Your task to perform on an android device: Find coffee shops on Maps Image 0: 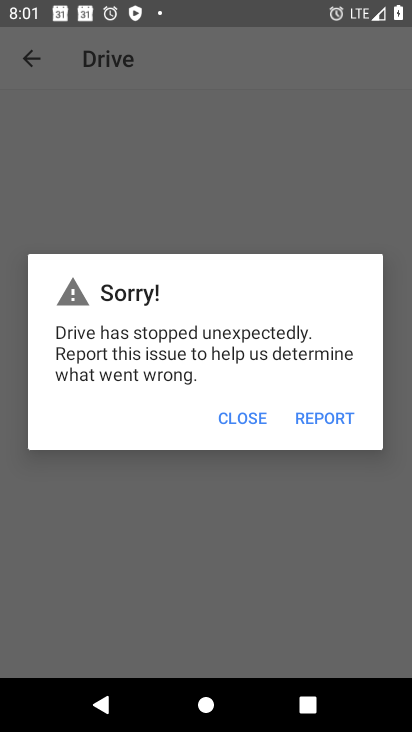
Step 0: press home button
Your task to perform on an android device: Find coffee shops on Maps Image 1: 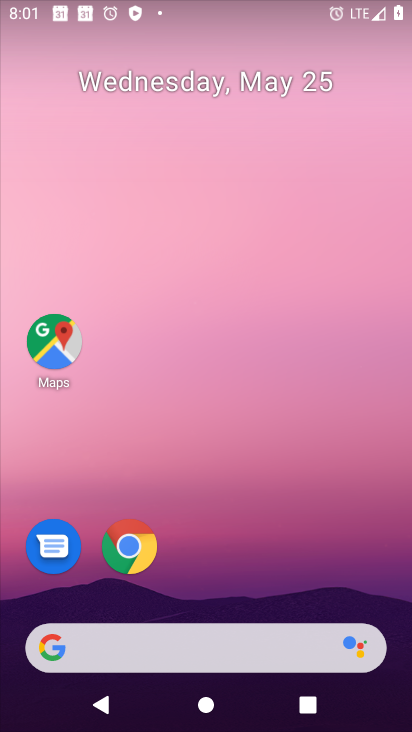
Step 1: drag from (380, 602) to (367, 250)
Your task to perform on an android device: Find coffee shops on Maps Image 2: 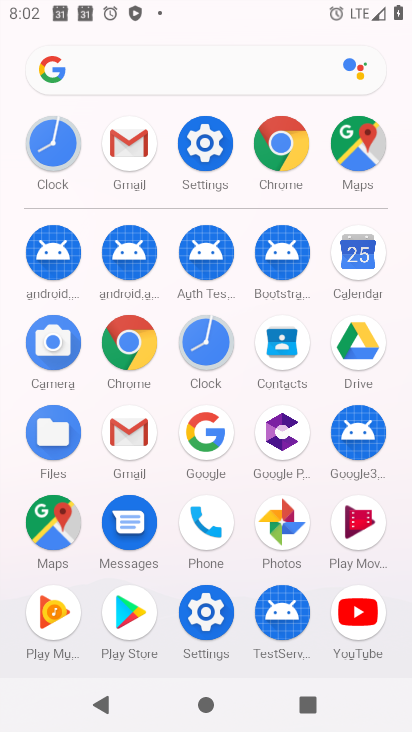
Step 2: click (67, 544)
Your task to perform on an android device: Find coffee shops on Maps Image 3: 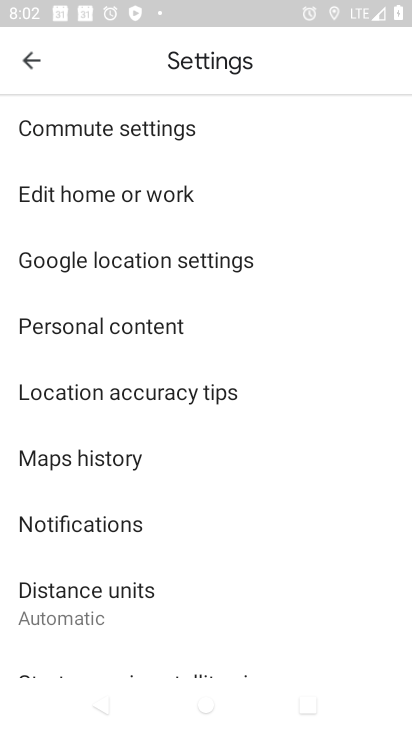
Step 3: press back button
Your task to perform on an android device: Find coffee shops on Maps Image 4: 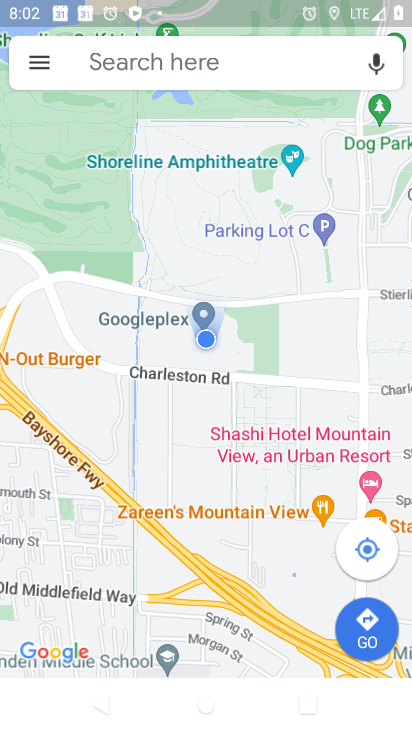
Step 4: click (198, 66)
Your task to perform on an android device: Find coffee shops on Maps Image 5: 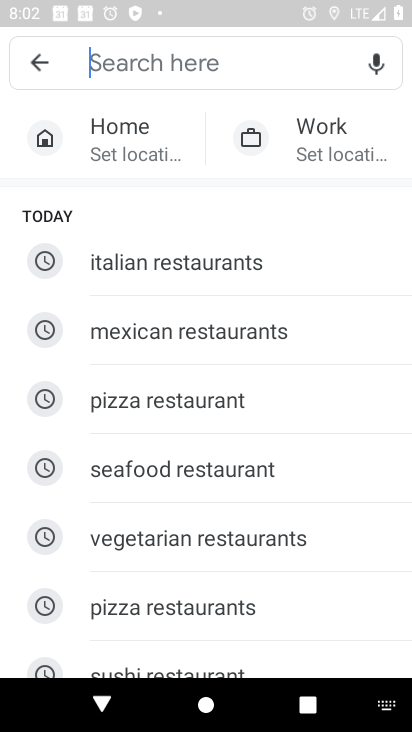
Step 5: type "coffee"
Your task to perform on an android device: Find coffee shops on Maps Image 6: 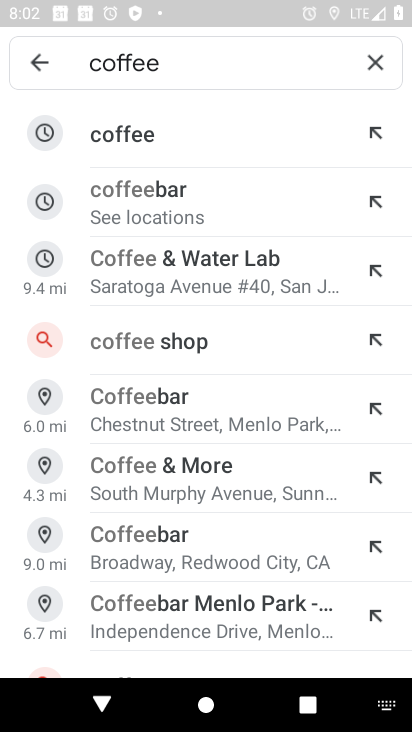
Step 6: click (277, 143)
Your task to perform on an android device: Find coffee shops on Maps Image 7: 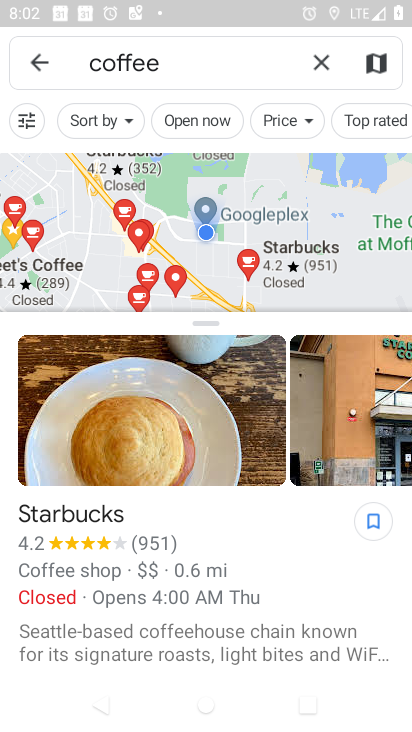
Step 7: task complete